Your task to perform on an android device: Search for sushi restaurants on Maps Image 0: 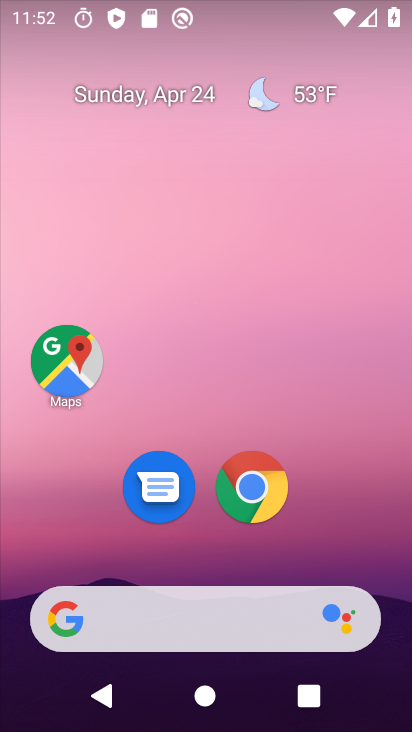
Step 0: click (54, 363)
Your task to perform on an android device: Search for sushi restaurants on Maps Image 1: 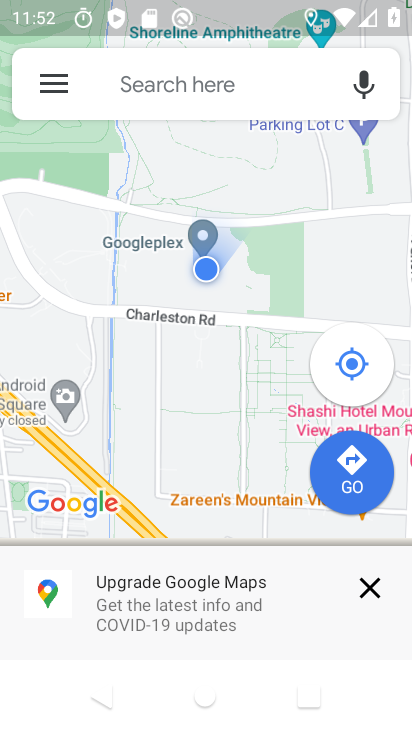
Step 1: click (145, 92)
Your task to perform on an android device: Search for sushi restaurants on Maps Image 2: 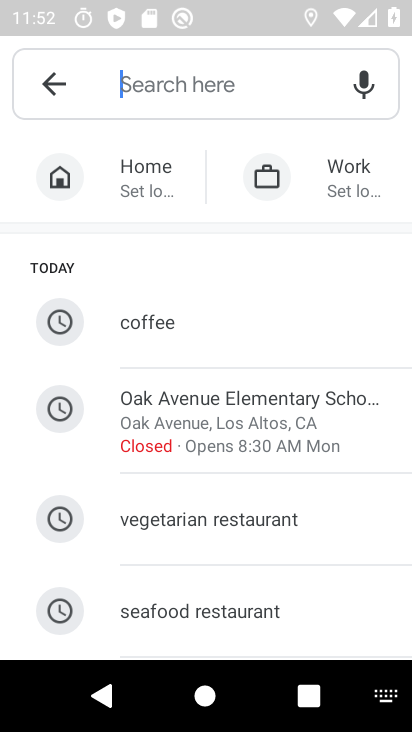
Step 2: type "sushi res"
Your task to perform on an android device: Search for sushi restaurants on Maps Image 3: 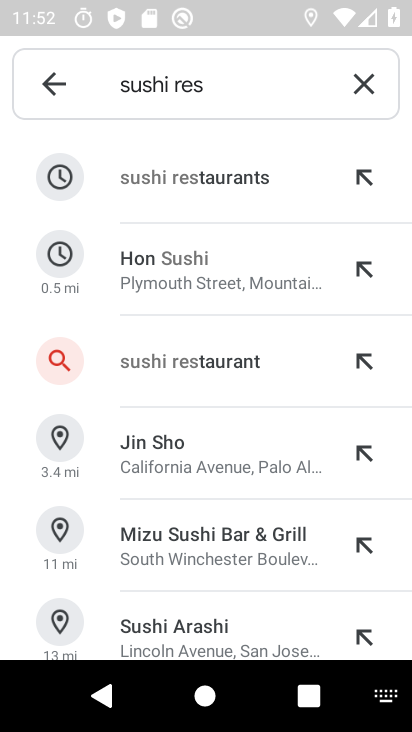
Step 3: click (254, 161)
Your task to perform on an android device: Search for sushi restaurants on Maps Image 4: 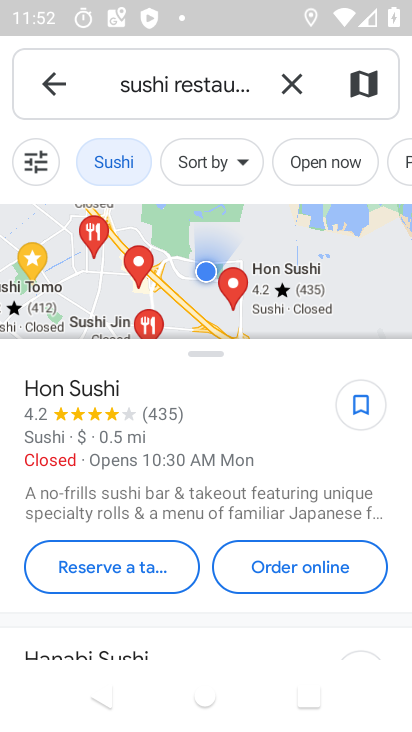
Step 4: task complete